Your task to perform on an android device: Open Yahoo.com Image 0: 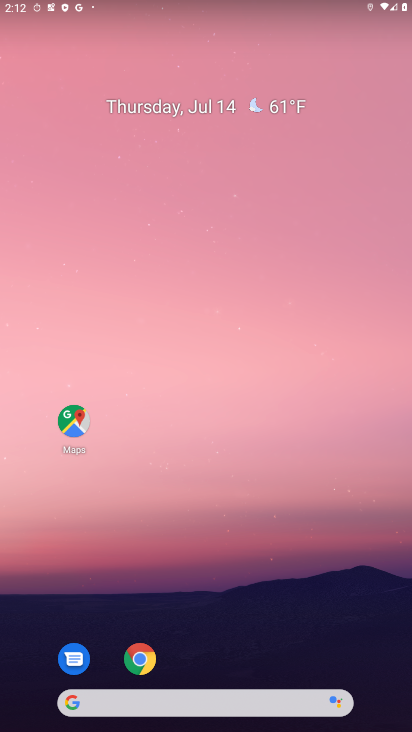
Step 0: click (144, 657)
Your task to perform on an android device: Open Yahoo.com Image 1: 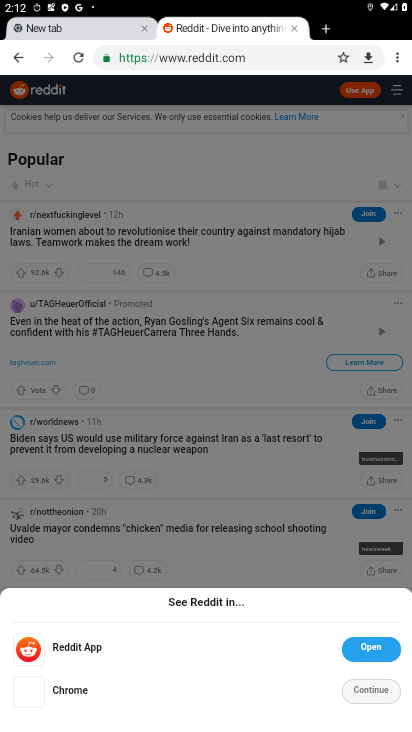
Step 1: click (92, 40)
Your task to perform on an android device: Open Yahoo.com Image 2: 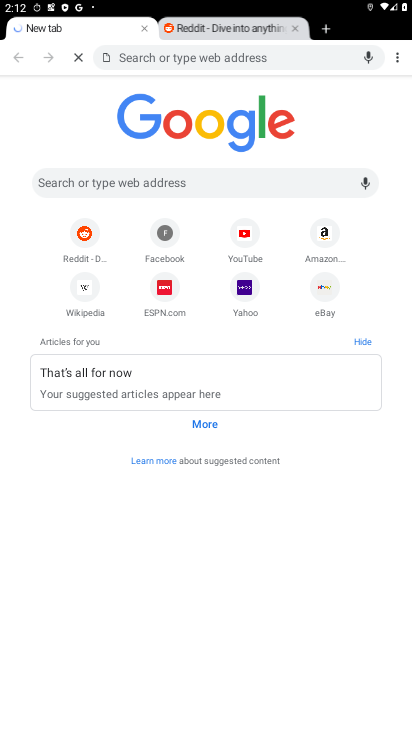
Step 2: click (101, 26)
Your task to perform on an android device: Open Yahoo.com Image 3: 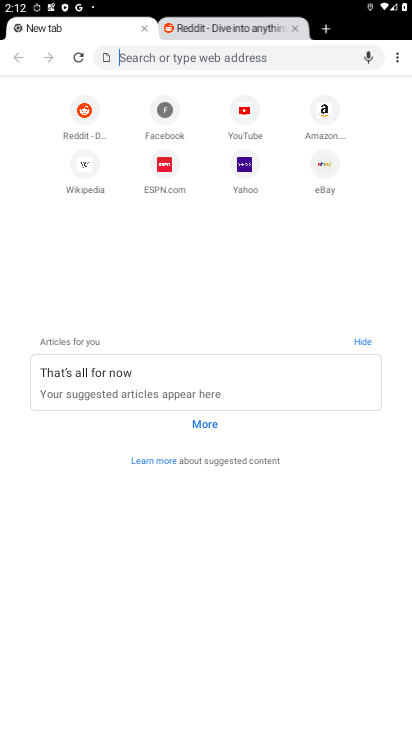
Step 3: click (246, 171)
Your task to perform on an android device: Open Yahoo.com Image 4: 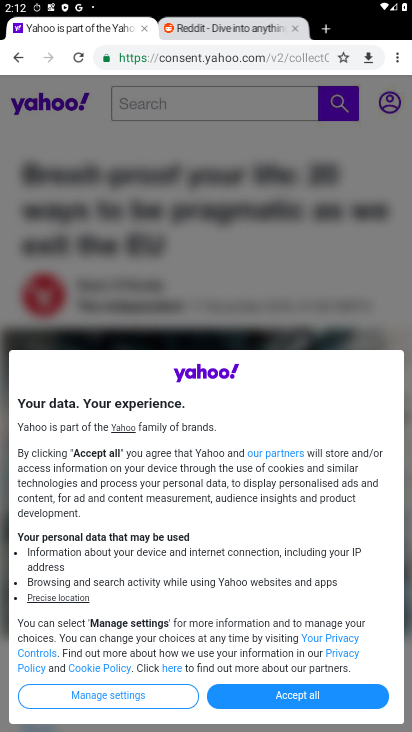
Step 4: click (319, 683)
Your task to perform on an android device: Open Yahoo.com Image 5: 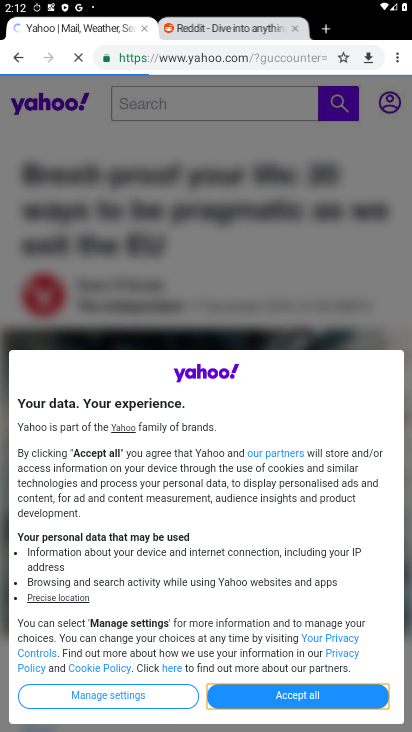
Step 5: task complete